Your task to perform on an android device: Set the phone to "Do not disturb". Image 0: 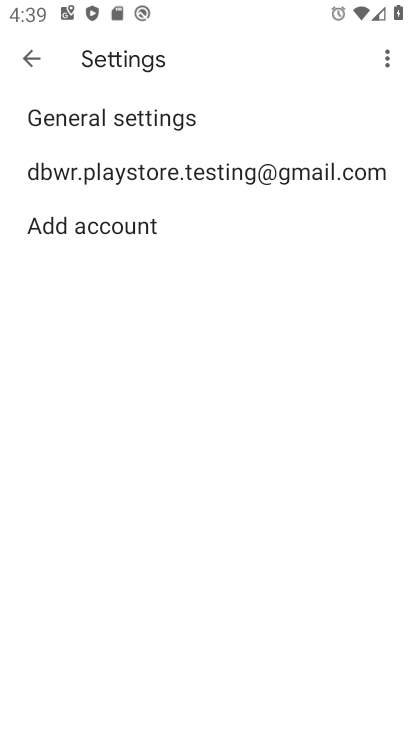
Step 0: press home button
Your task to perform on an android device: Set the phone to "Do not disturb". Image 1: 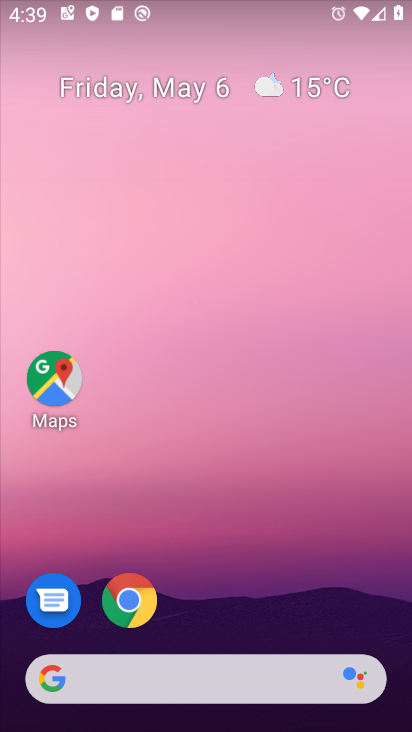
Step 1: drag from (221, 556) to (283, 160)
Your task to perform on an android device: Set the phone to "Do not disturb". Image 2: 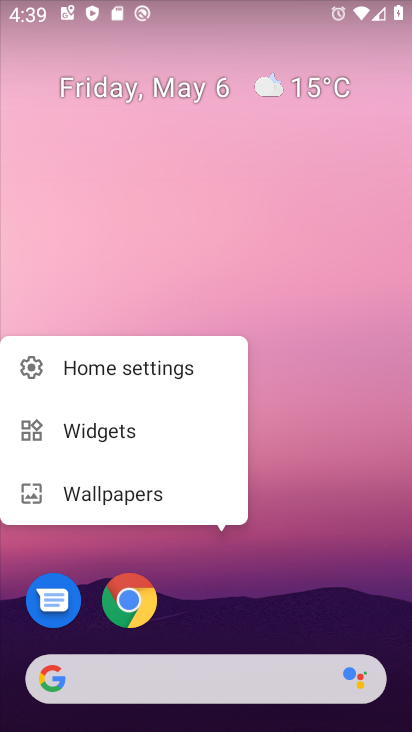
Step 2: drag from (208, 415) to (262, 22)
Your task to perform on an android device: Set the phone to "Do not disturb". Image 3: 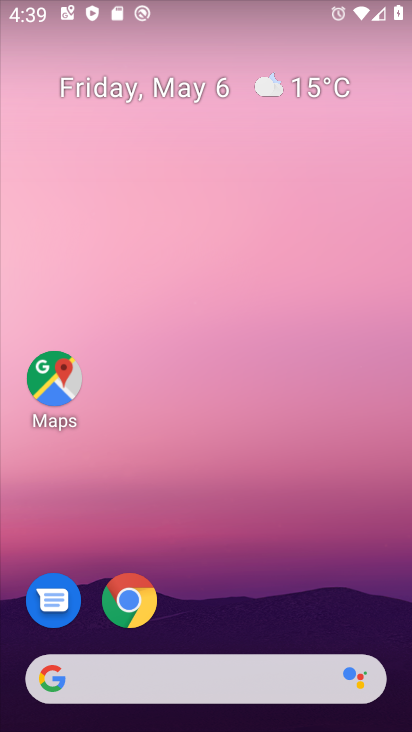
Step 3: drag from (213, 638) to (247, 177)
Your task to perform on an android device: Set the phone to "Do not disturb". Image 4: 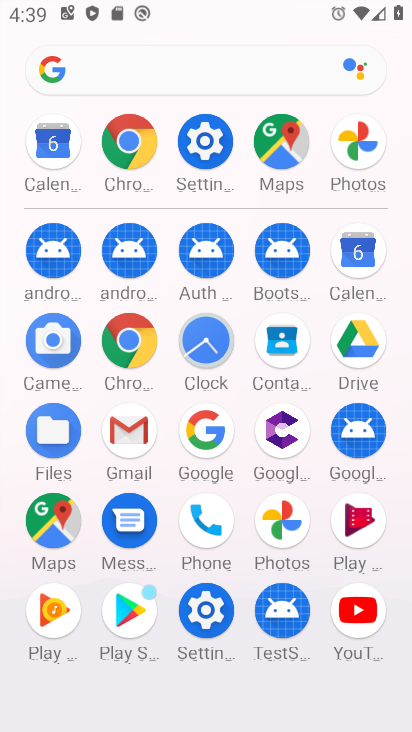
Step 4: press home button
Your task to perform on an android device: Set the phone to "Do not disturb". Image 5: 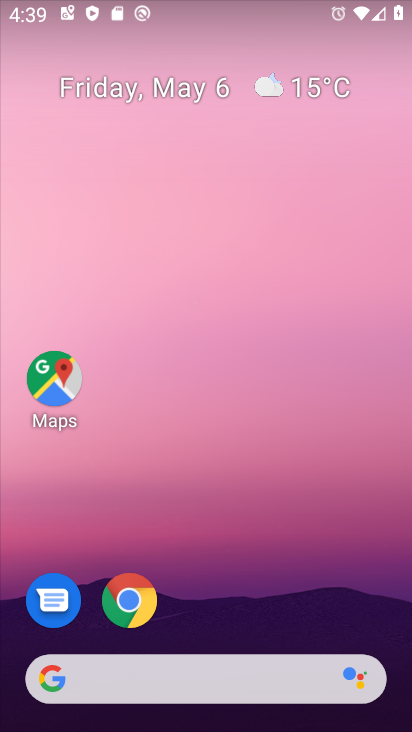
Step 5: drag from (167, 387) to (169, 287)
Your task to perform on an android device: Set the phone to "Do not disturb". Image 6: 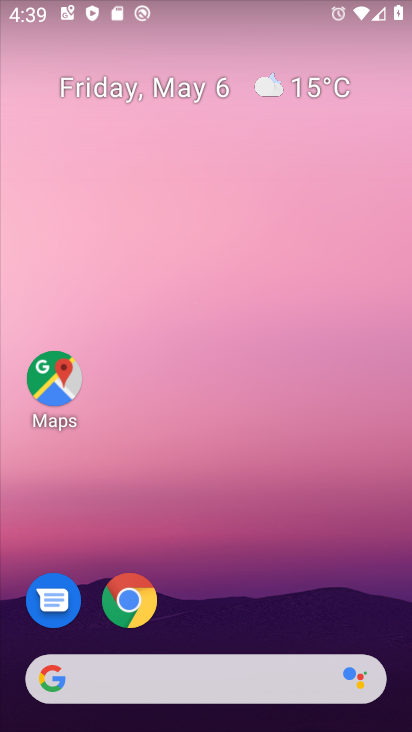
Step 6: drag from (222, 619) to (306, 0)
Your task to perform on an android device: Set the phone to "Do not disturb". Image 7: 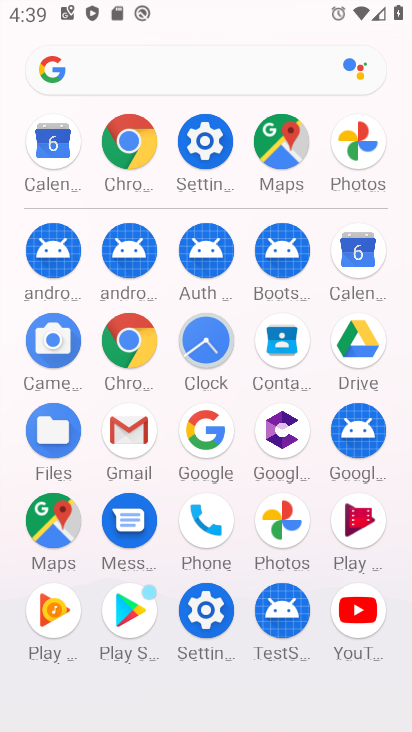
Step 7: click (205, 156)
Your task to perform on an android device: Set the phone to "Do not disturb". Image 8: 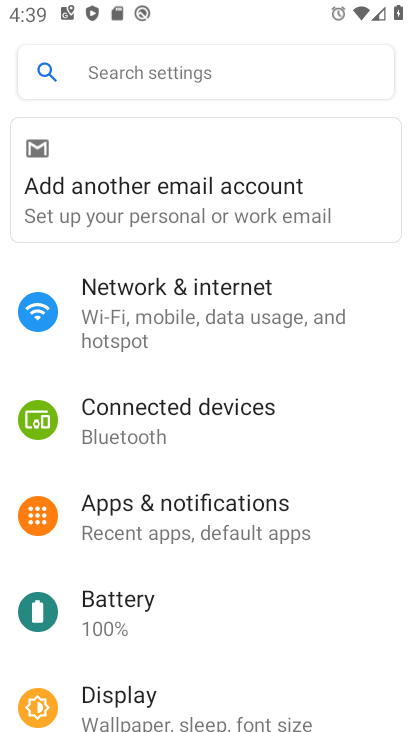
Step 8: drag from (165, 527) to (228, 215)
Your task to perform on an android device: Set the phone to "Do not disturb". Image 9: 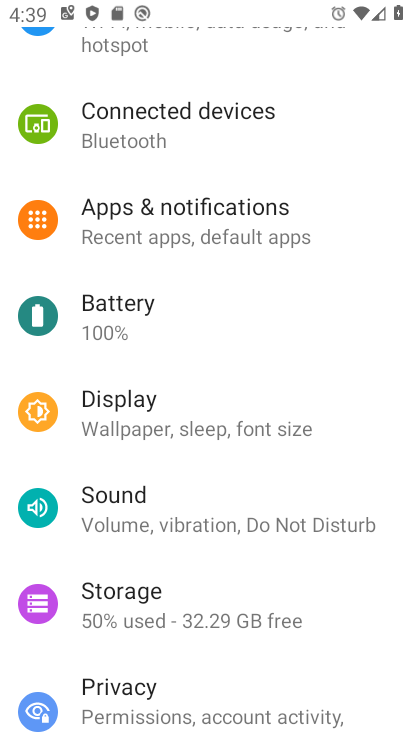
Step 9: click (172, 533)
Your task to perform on an android device: Set the phone to "Do not disturb". Image 10: 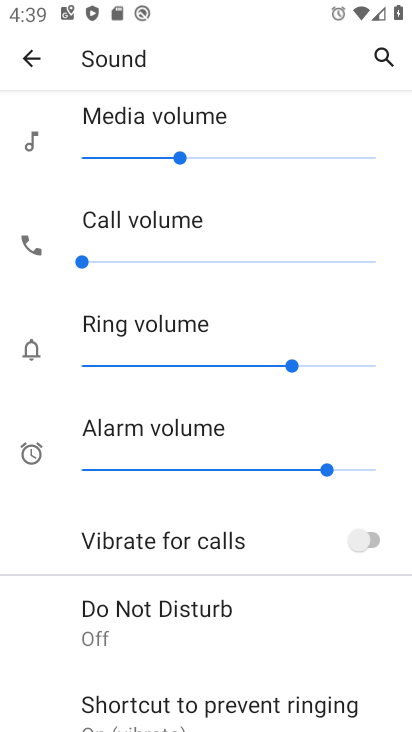
Step 10: drag from (171, 525) to (199, 159)
Your task to perform on an android device: Set the phone to "Do not disturb". Image 11: 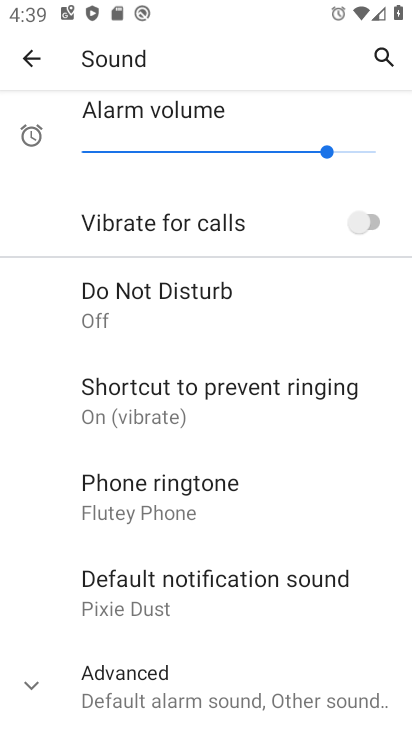
Step 11: drag from (142, 630) to (175, 330)
Your task to perform on an android device: Set the phone to "Do not disturb". Image 12: 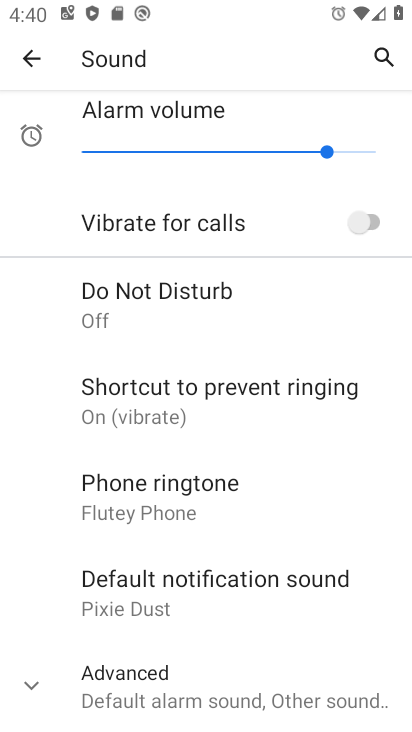
Step 12: click (156, 298)
Your task to perform on an android device: Set the phone to "Do not disturb". Image 13: 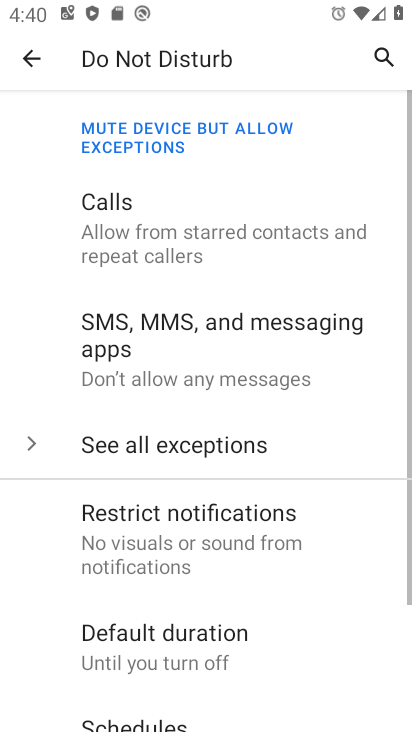
Step 13: drag from (147, 579) to (179, 179)
Your task to perform on an android device: Set the phone to "Do not disturb". Image 14: 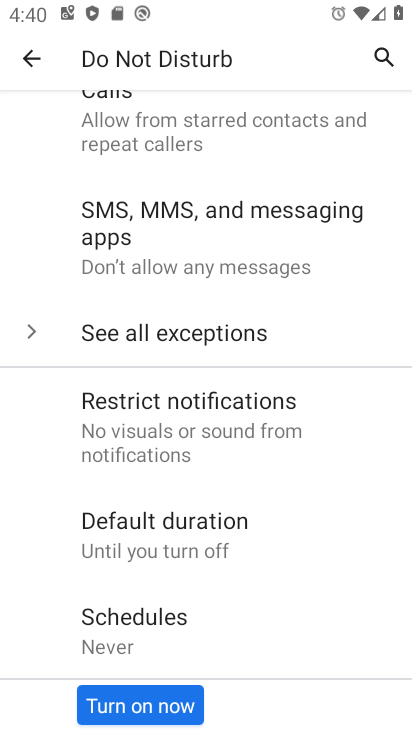
Step 14: click (137, 700)
Your task to perform on an android device: Set the phone to "Do not disturb". Image 15: 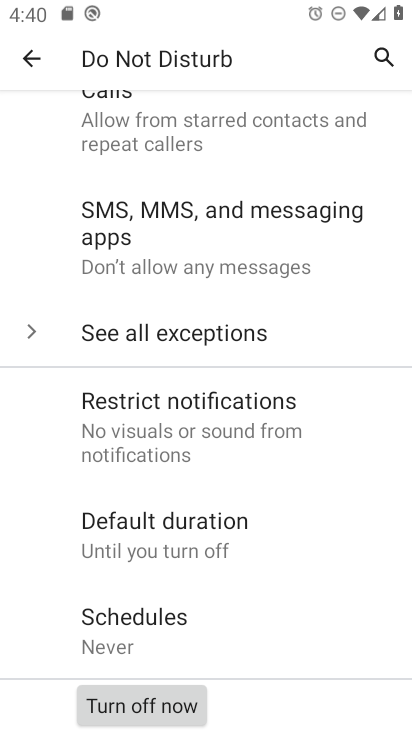
Step 15: task complete